Your task to perform on an android device: Look up the top rated headphones on Amazon. Image 0: 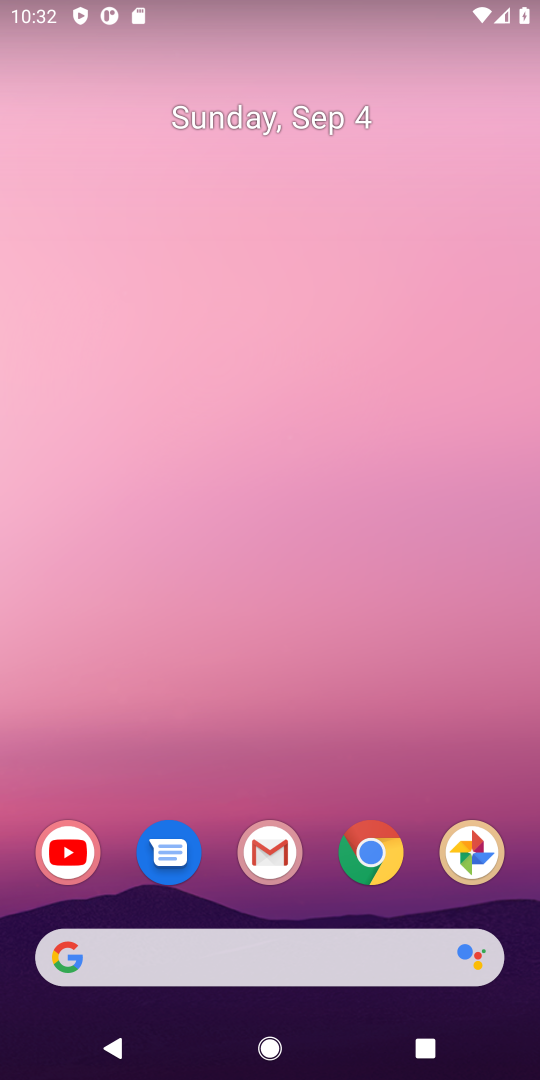
Step 0: drag from (426, 619) to (325, 35)
Your task to perform on an android device: Look up the top rated headphones on Amazon. Image 1: 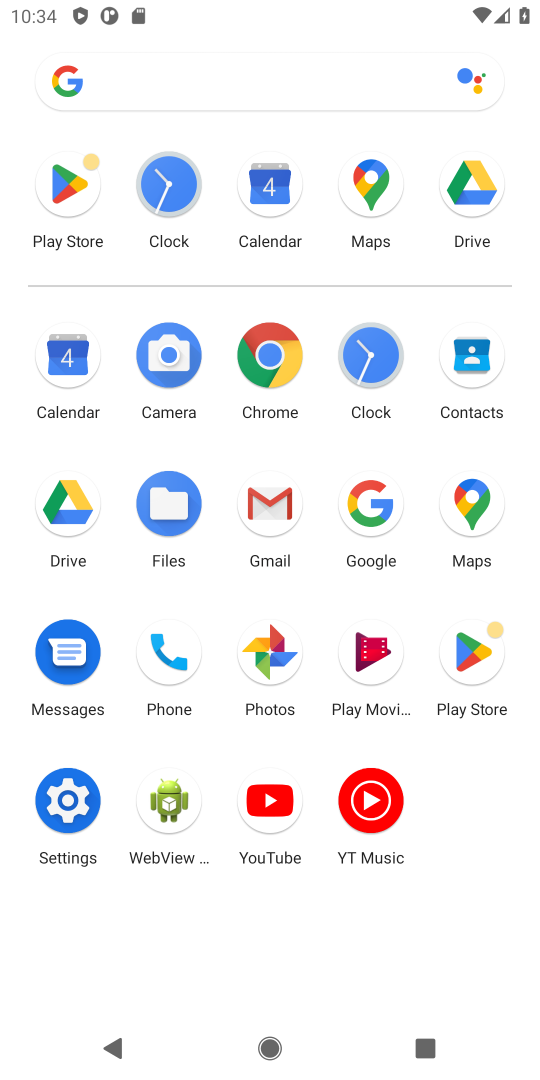
Step 1: click (385, 506)
Your task to perform on an android device: Look up the top rated headphones on Amazon. Image 2: 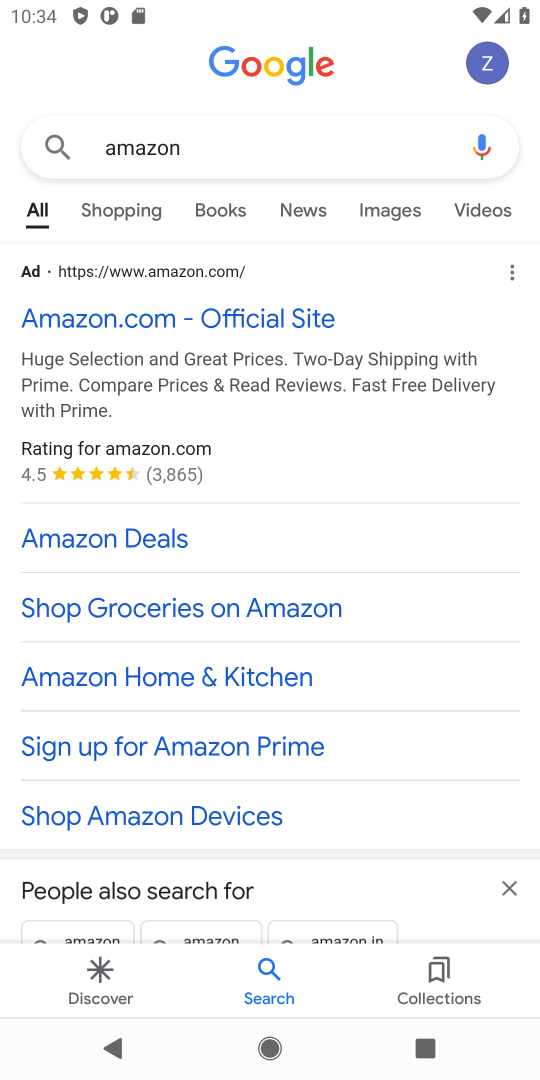
Step 2: press back button
Your task to perform on an android device: Look up the top rated headphones on Amazon. Image 3: 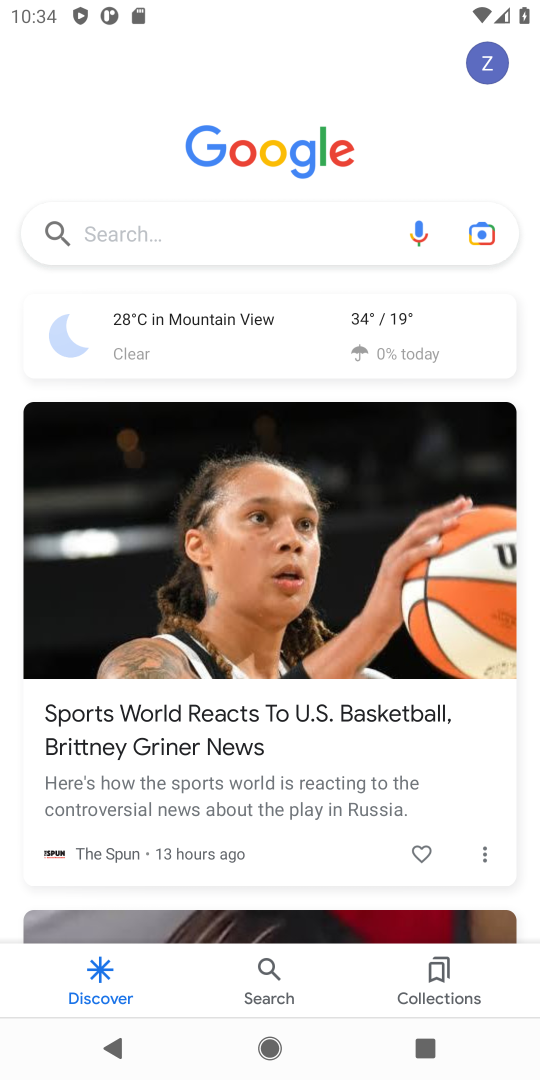
Step 3: click (124, 243)
Your task to perform on an android device: Look up the top rated headphones on Amazon. Image 4: 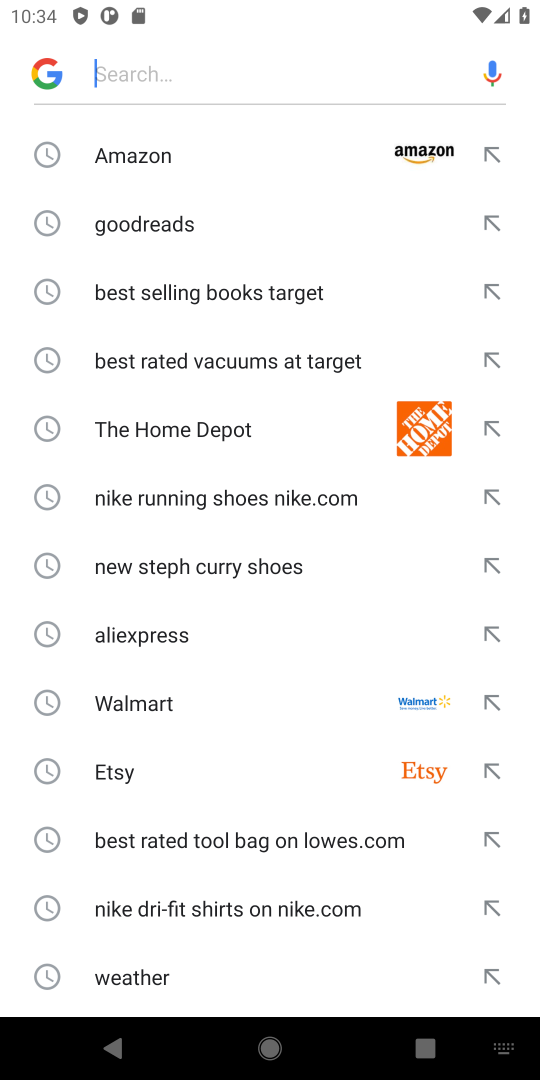
Step 4: click (133, 156)
Your task to perform on an android device: Look up the top rated headphones on Amazon. Image 5: 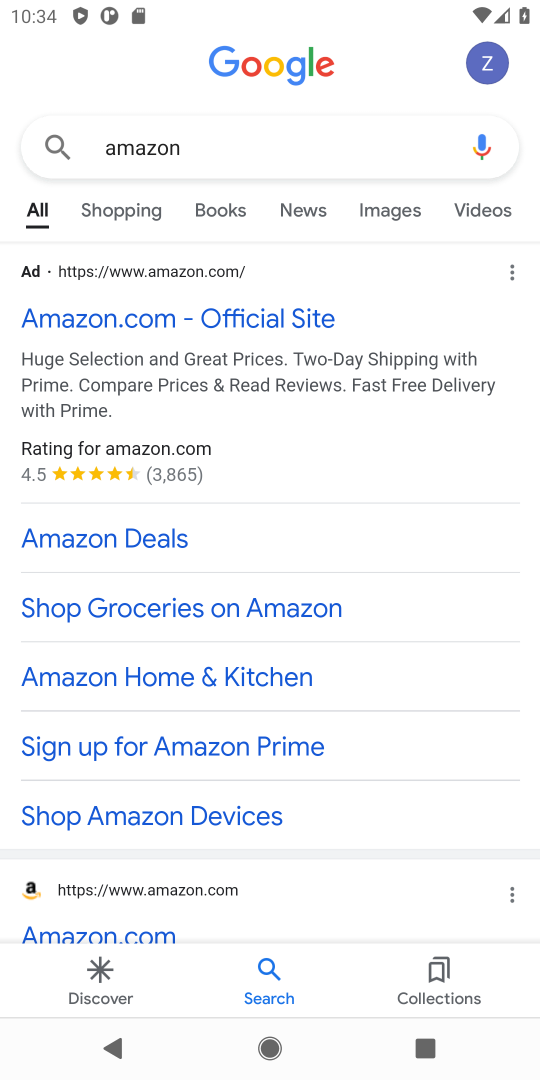
Step 5: click (210, 293)
Your task to perform on an android device: Look up the top rated headphones on Amazon. Image 6: 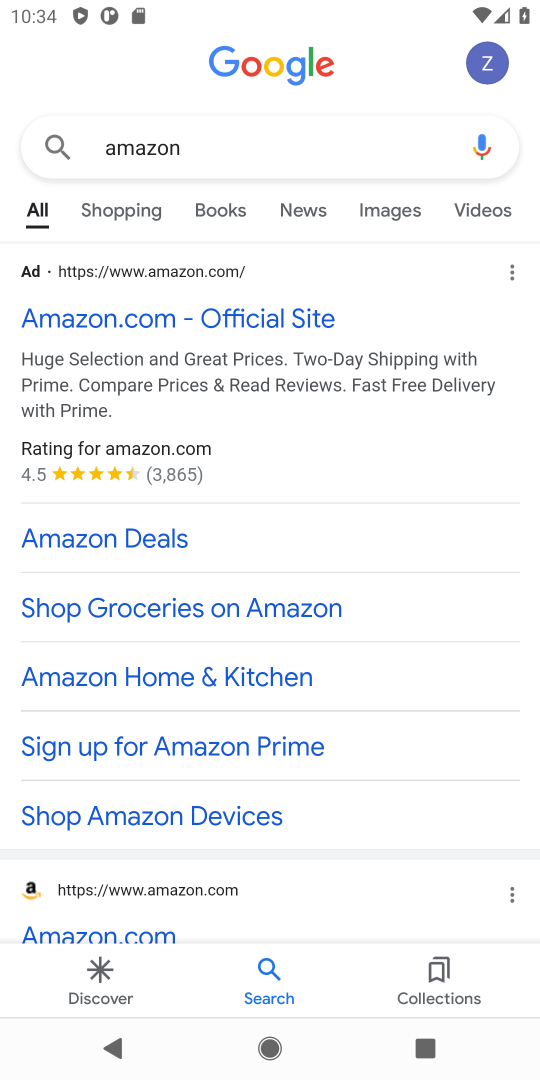
Step 6: click (299, 300)
Your task to perform on an android device: Look up the top rated headphones on Amazon. Image 7: 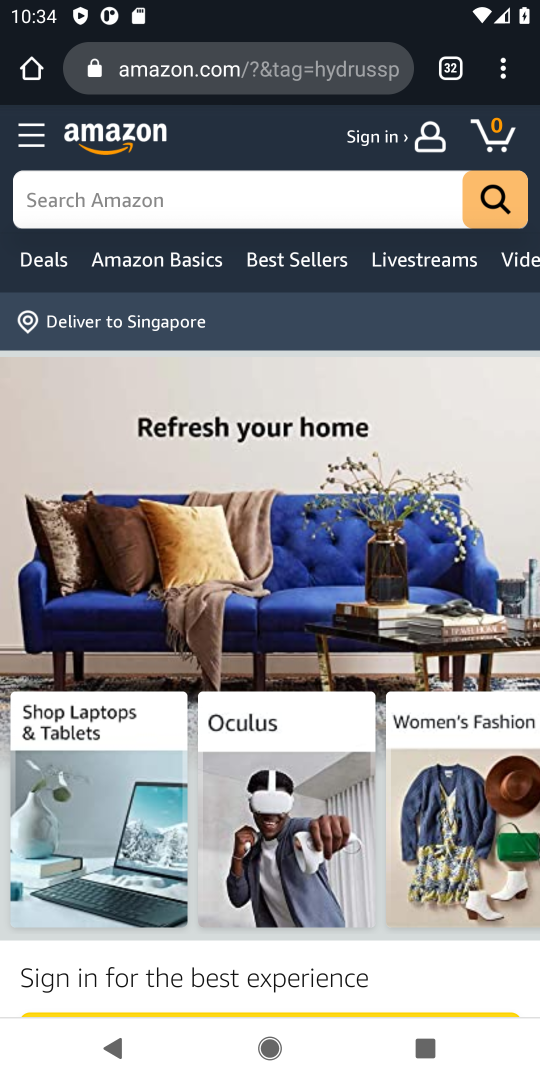
Step 7: click (138, 203)
Your task to perform on an android device: Look up the top rated headphones on Amazon. Image 8: 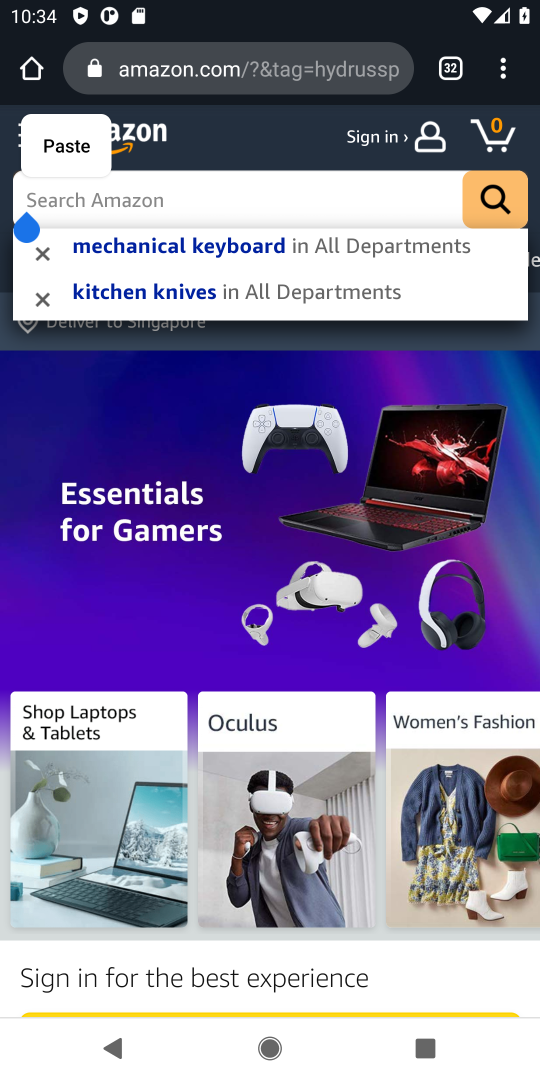
Step 8: type "headphones "
Your task to perform on an android device: Look up the top rated headphones on Amazon. Image 9: 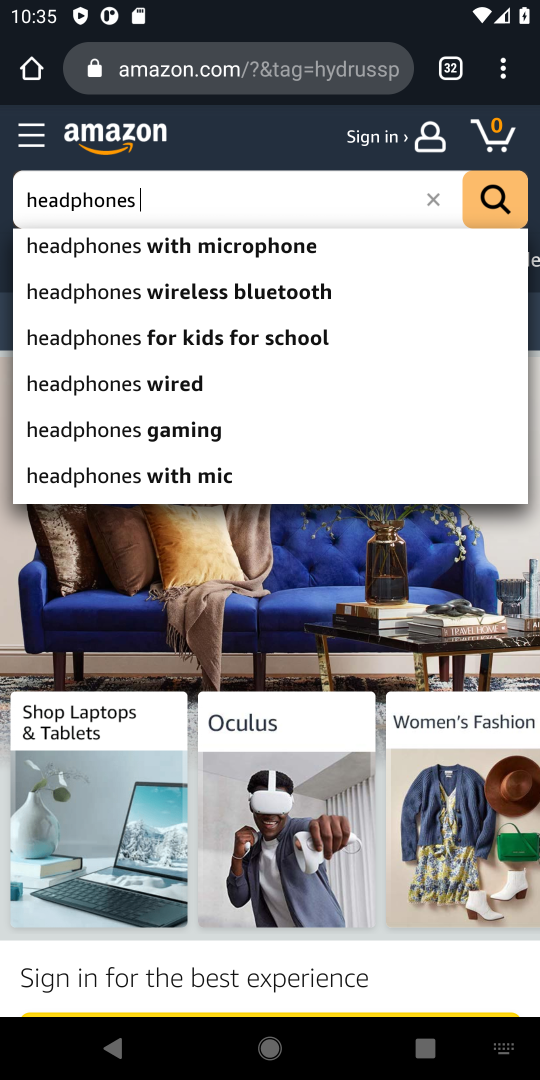
Step 9: click (481, 196)
Your task to perform on an android device: Look up the top rated headphones on Amazon. Image 10: 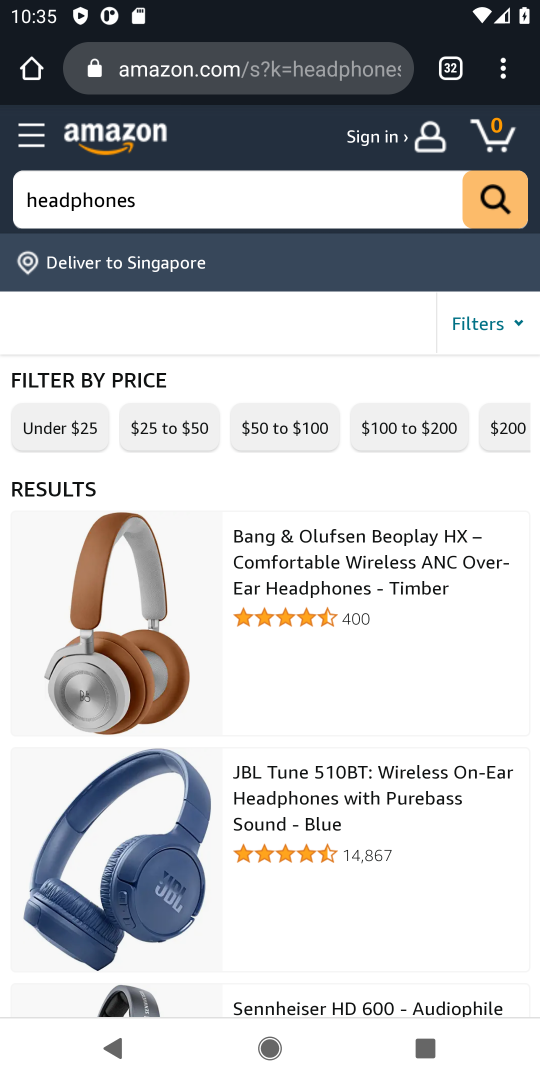
Step 10: task complete